Your task to perform on an android device: View the shopping cart on amazon.com. Search for "macbook pro" on amazon.com, select the first entry, add it to the cart, then select checkout. Image 0: 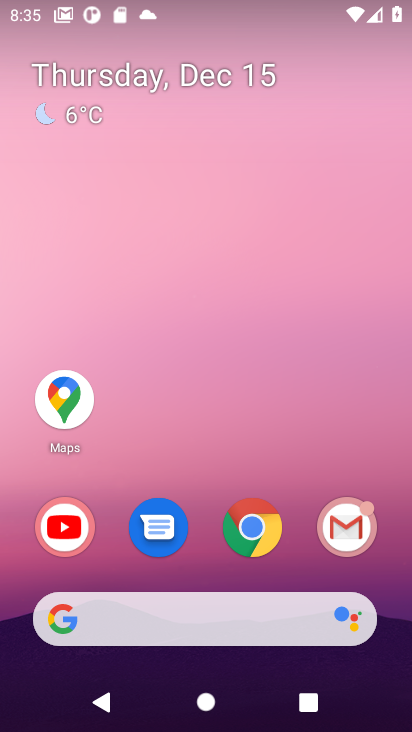
Step 0: click (257, 518)
Your task to perform on an android device: View the shopping cart on amazon.com. Search for "macbook pro" on amazon.com, select the first entry, add it to the cart, then select checkout. Image 1: 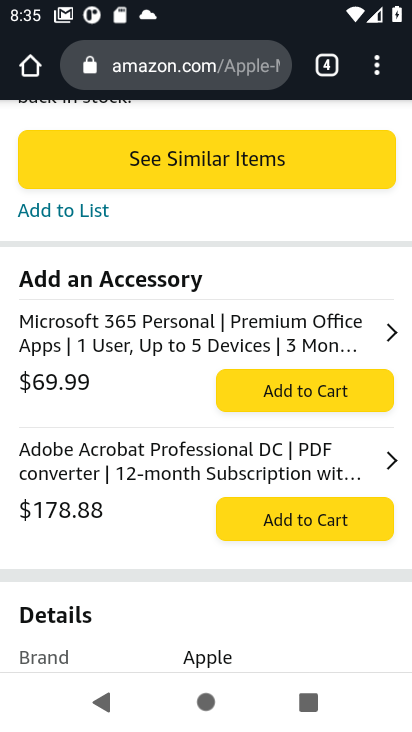
Step 1: task complete